Your task to perform on an android device: Go to network settings Image 0: 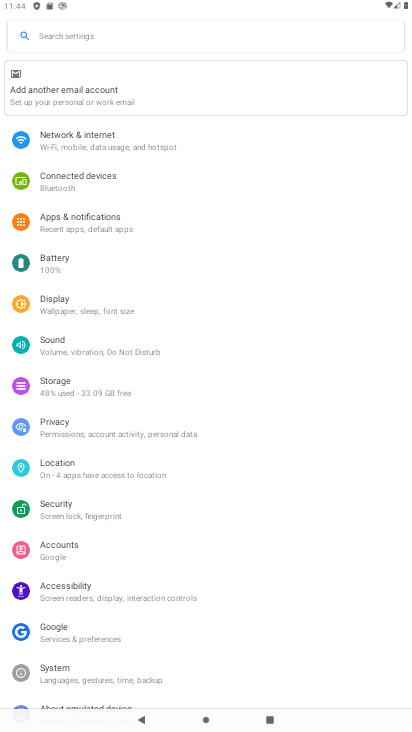
Step 0: click (335, 123)
Your task to perform on an android device: Go to network settings Image 1: 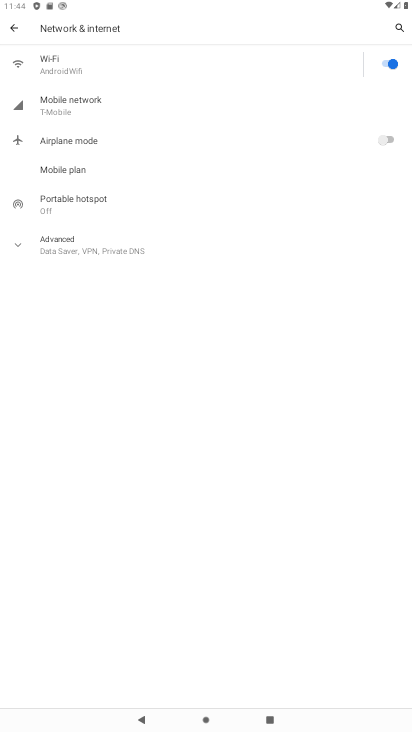
Step 1: click (186, 102)
Your task to perform on an android device: Go to network settings Image 2: 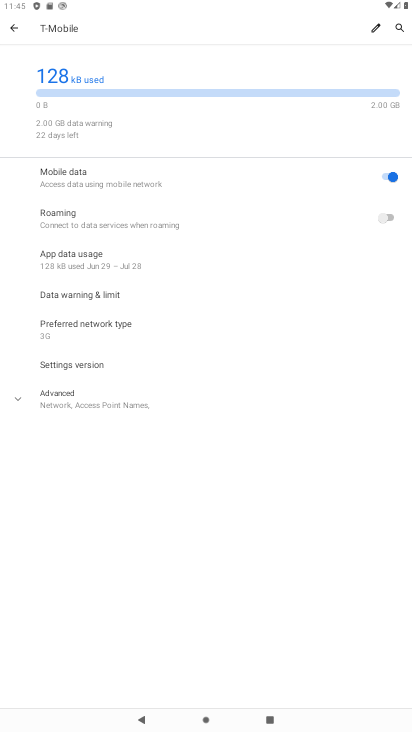
Step 2: task complete